Your task to perform on an android device: How much does the new iPad cost on eBay? Image 0: 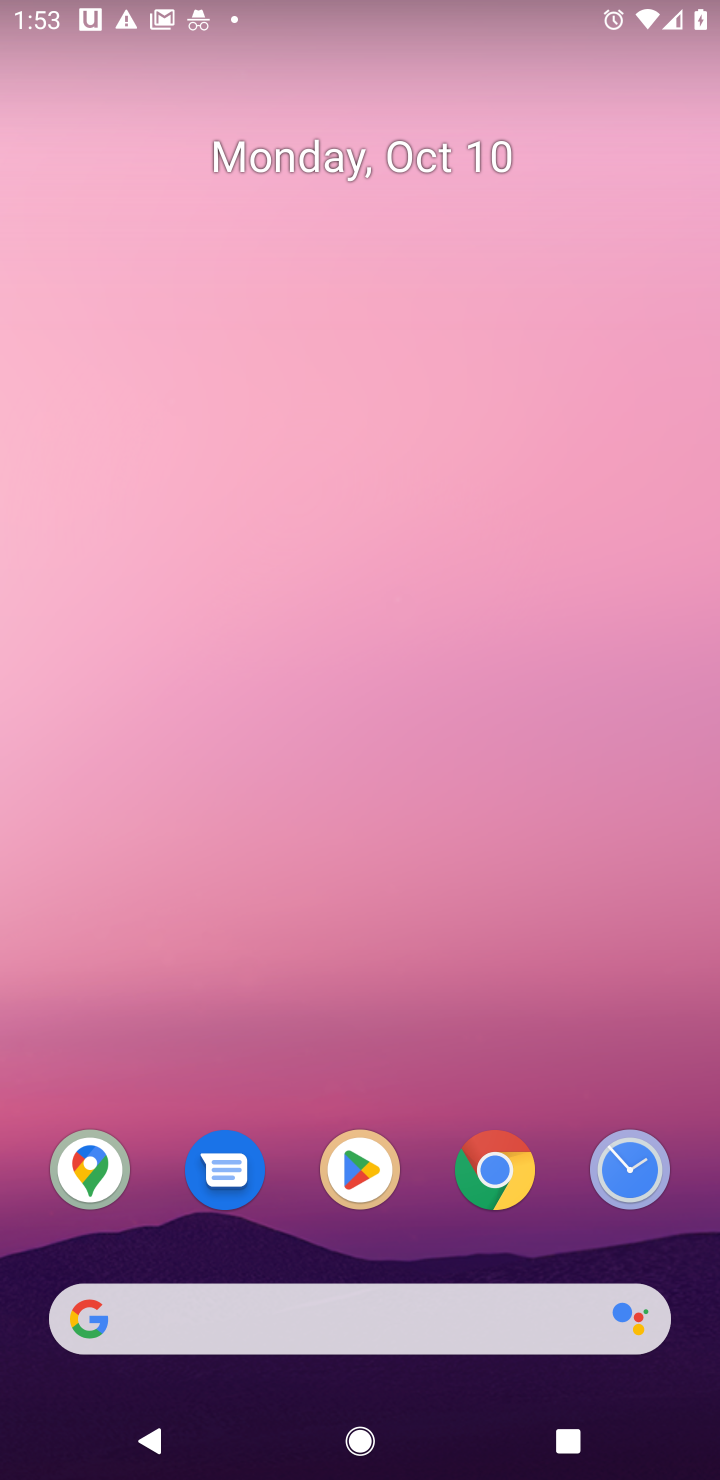
Step 0: click (516, 1180)
Your task to perform on an android device: How much does the new iPad cost on eBay? Image 1: 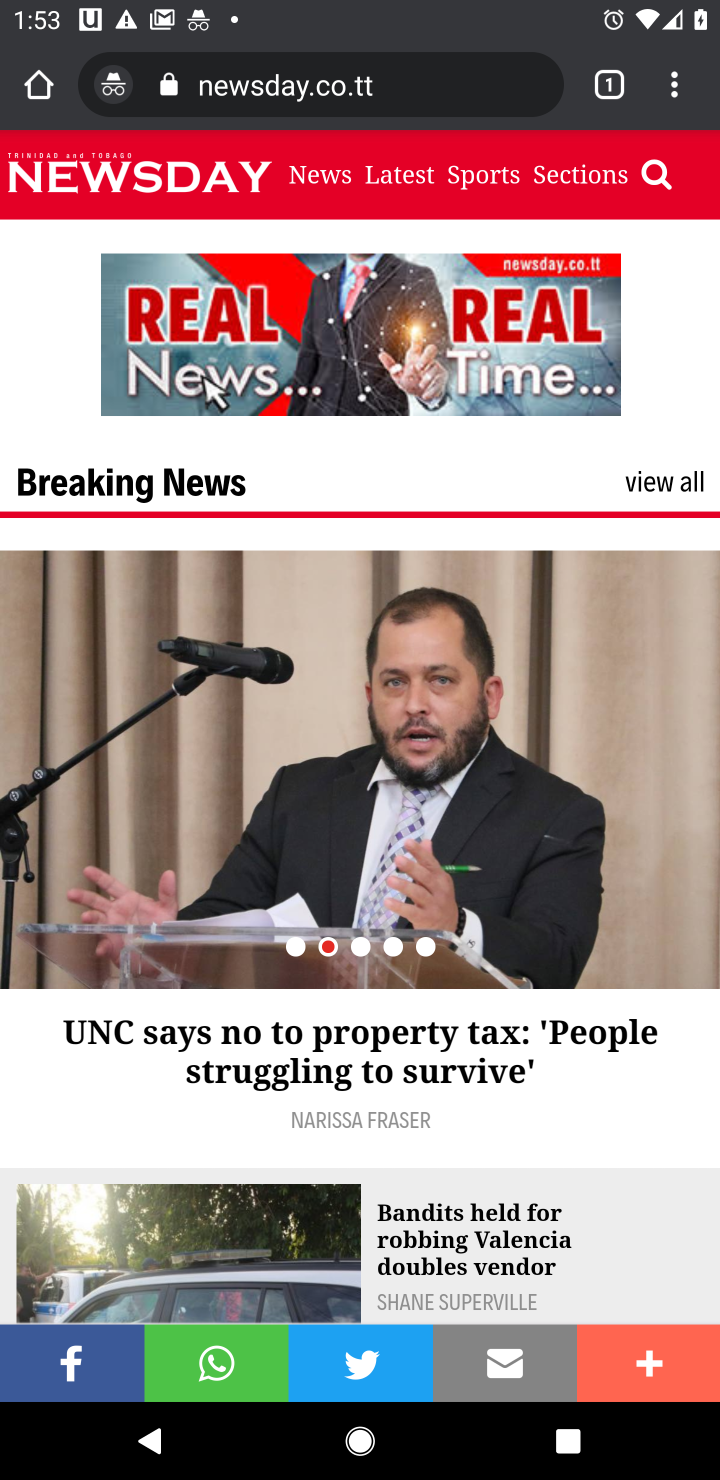
Step 1: click (351, 90)
Your task to perform on an android device: How much does the new iPad cost on eBay? Image 2: 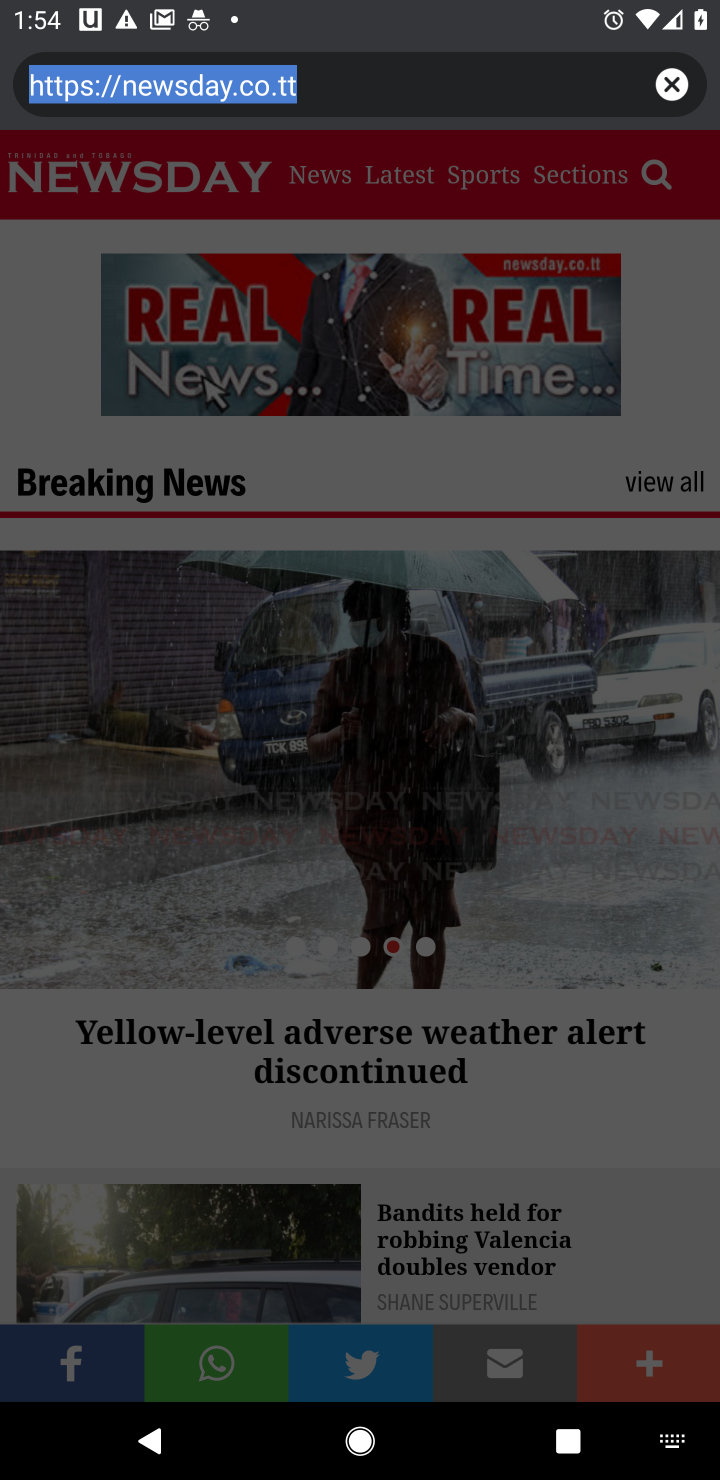
Step 2: click (669, 88)
Your task to perform on an android device: How much does the new iPad cost on eBay? Image 3: 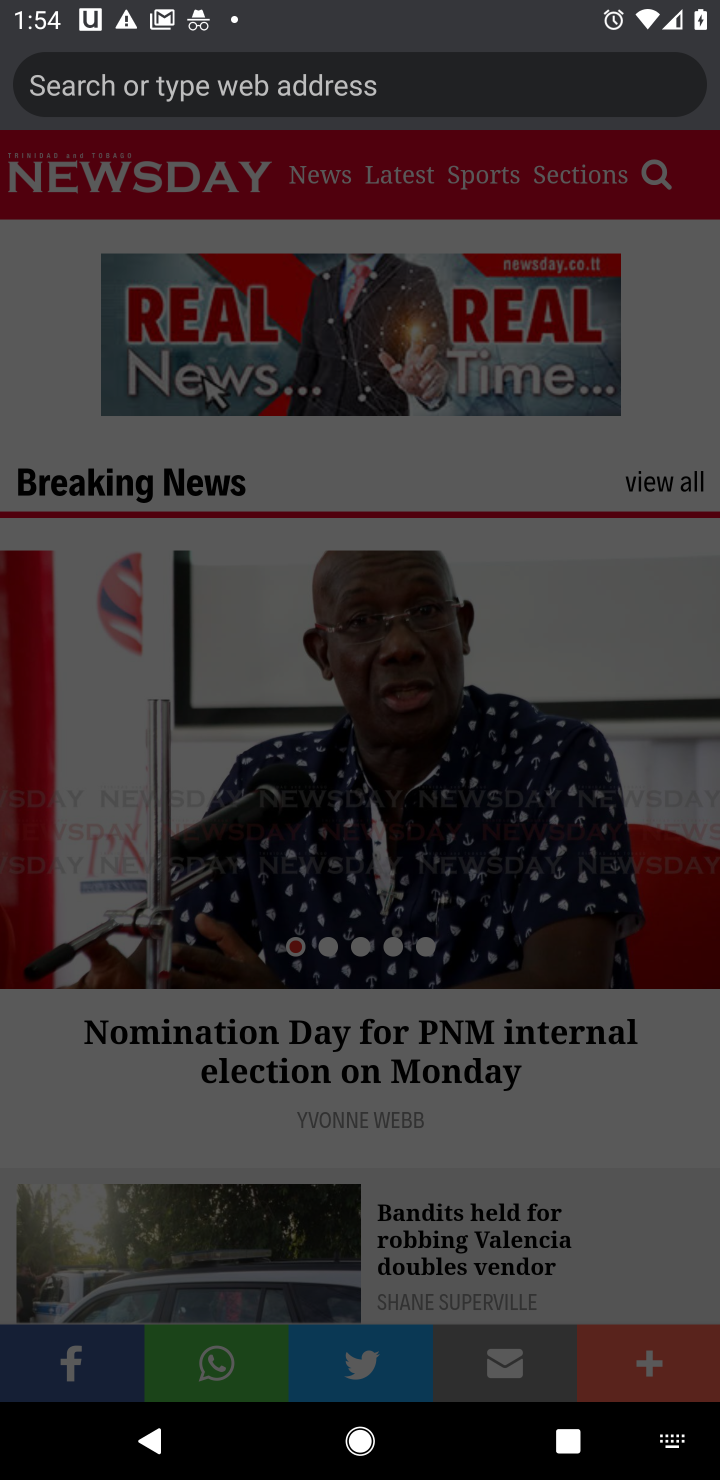
Step 3: type "new iPAD cost on eBay"
Your task to perform on an android device: How much does the new iPad cost on eBay? Image 4: 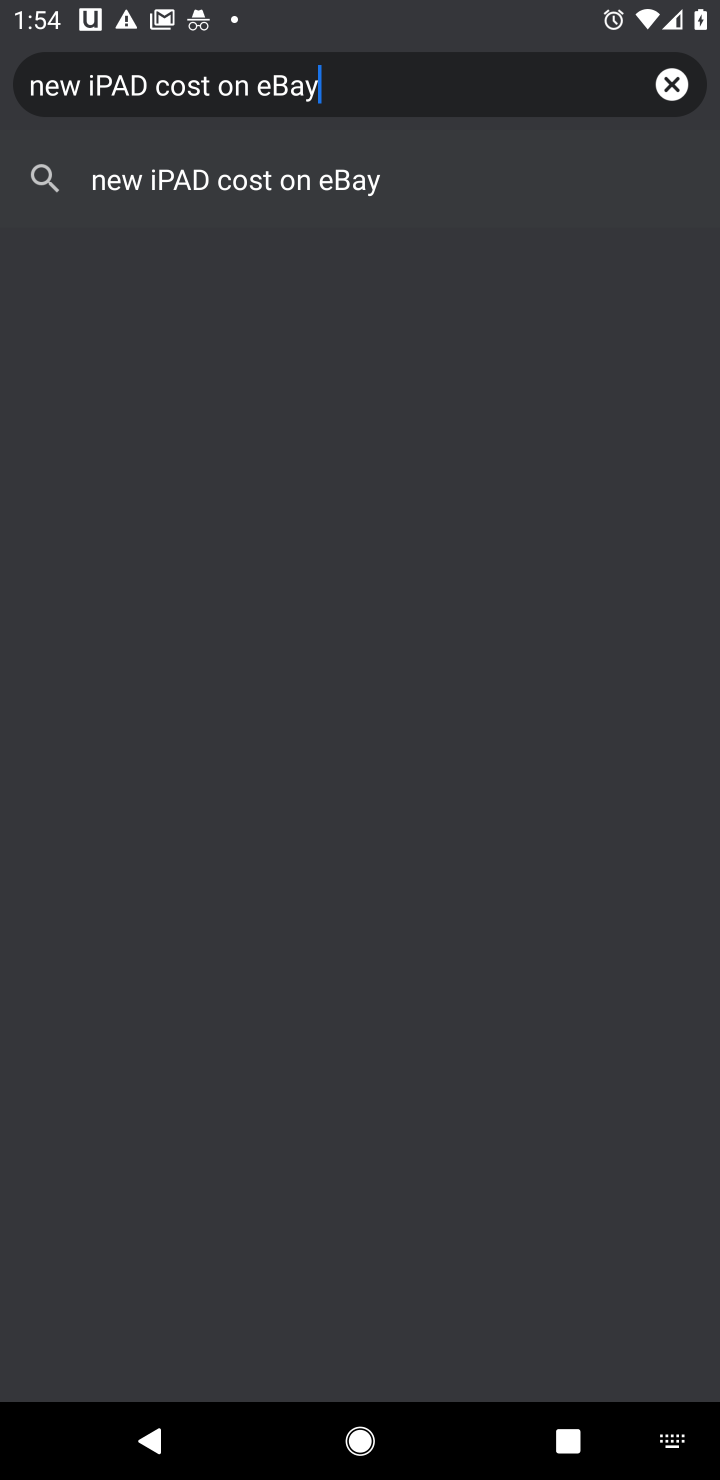
Step 4: click (200, 174)
Your task to perform on an android device: How much does the new iPad cost on eBay? Image 5: 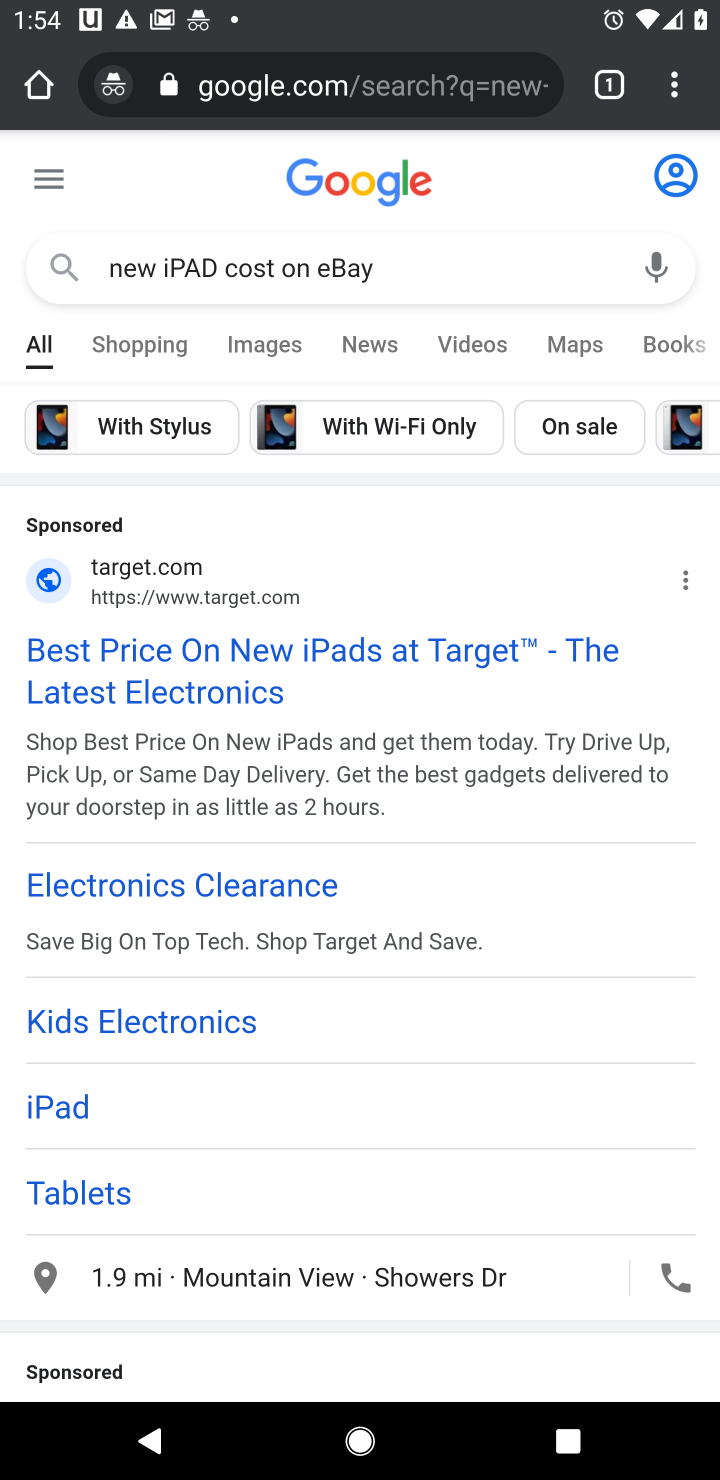
Step 5: click (252, 675)
Your task to perform on an android device: How much does the new iPad cost on eBay? Image 6: 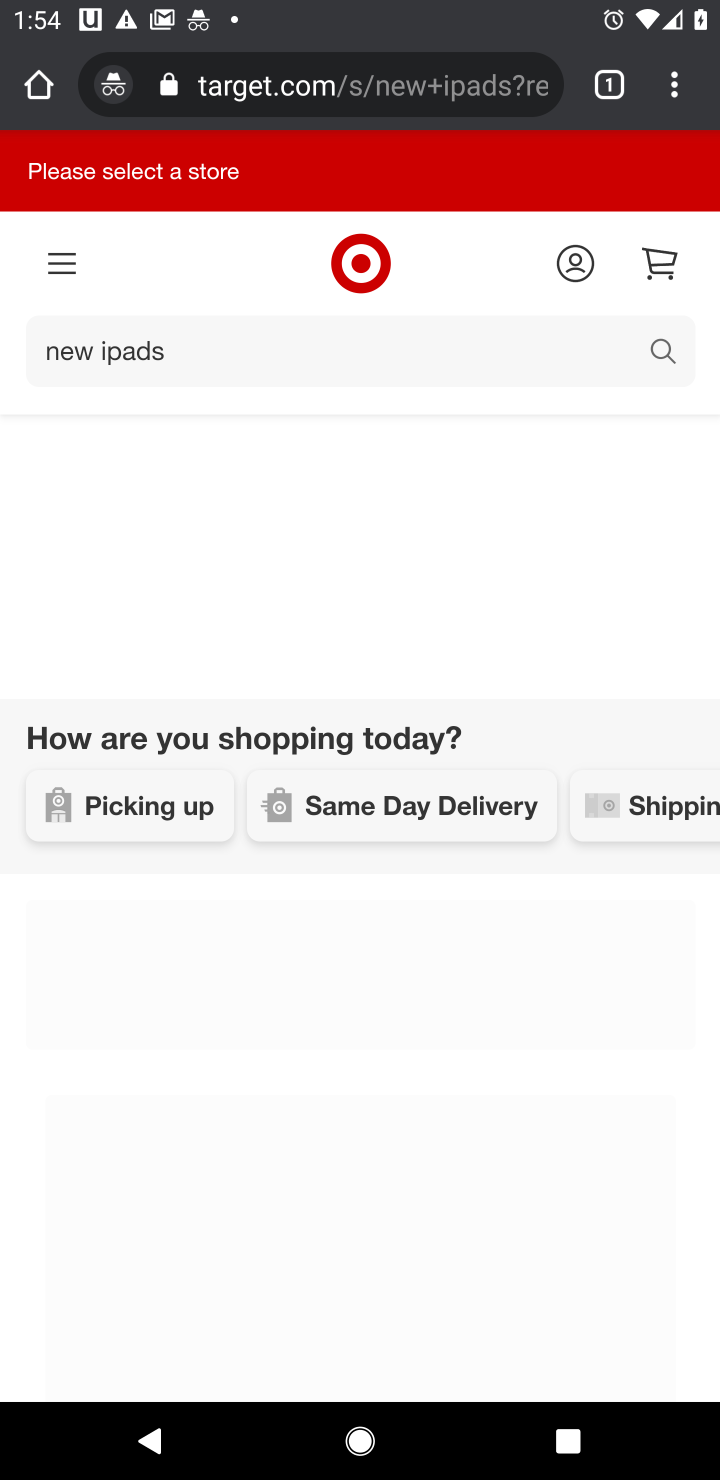
Step 6: task complete